Your task to perform on an android device: turn smart compose on in the gmail app Image 0: 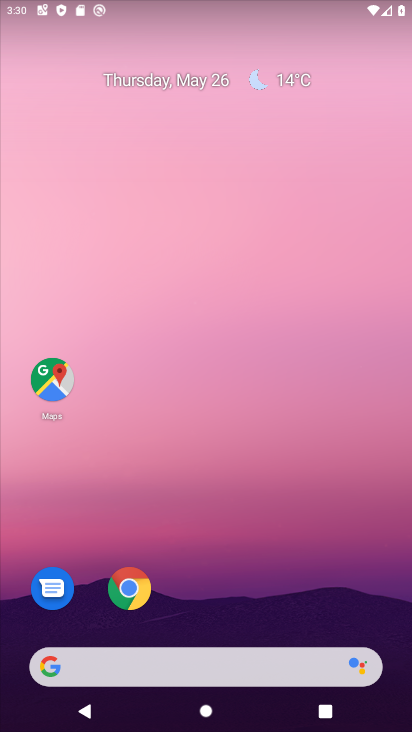
Step 0: drag from (250, 590) to (279, 244)
Your task to perform on an android device: turn smart compose on in the gmail app Image 1: 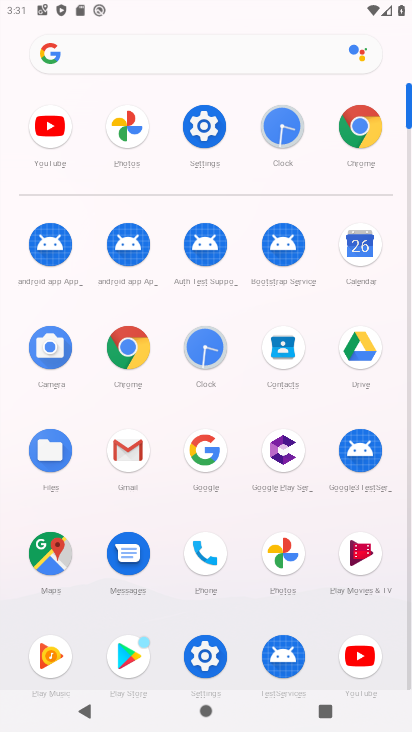
Step 1: click (131, 455)
Your task to perform on an android device: turn smart compose on in the gmail app Image 2: 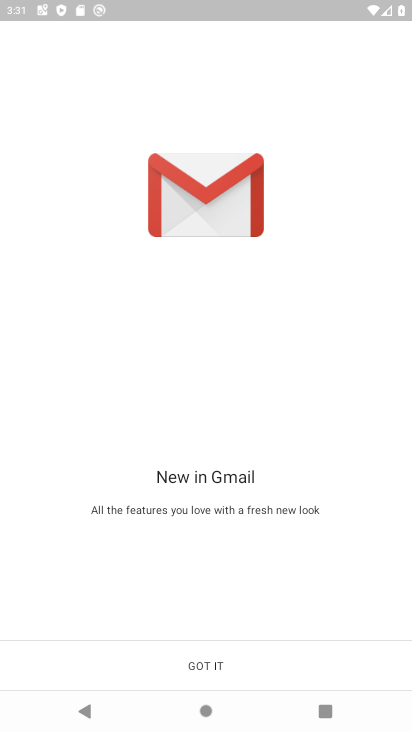
Step 2: click (200, 677)
Your task to perform on an android device: turn smart compose on in the gmail app Image 3: 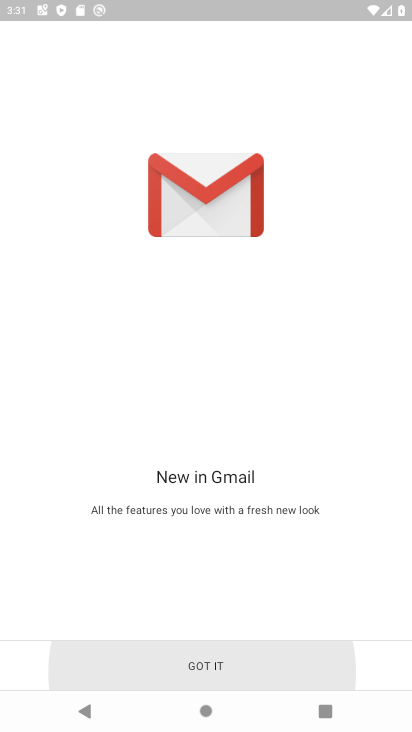
Step 3: click (200, 677)
Your task to perform on an android device: turn smart compose on in the gmail app Image 4: 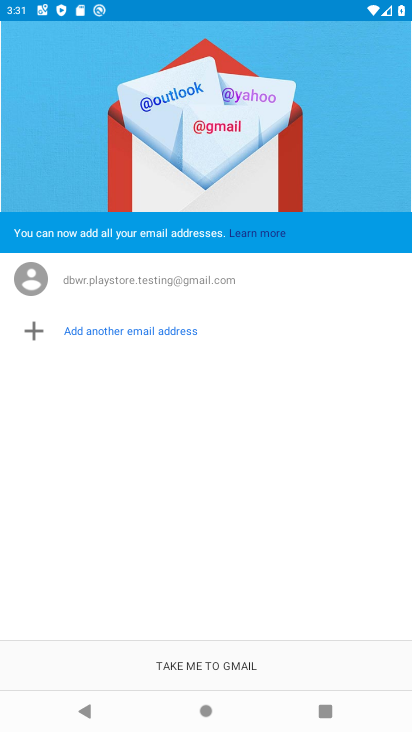
Step 4: click (200, 677)
Your task to perform on an android device: turn smart compose on in the gmail app Image 5: 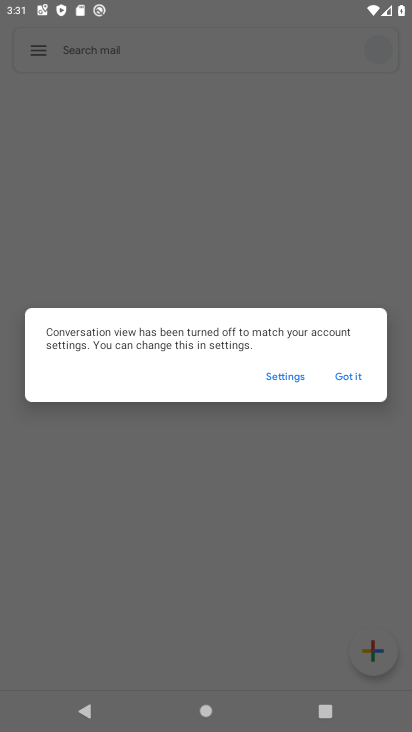
Step 5: click (340, 387)
Your task to perform on an android device: turn smart compose on in the gmail app Image 6: 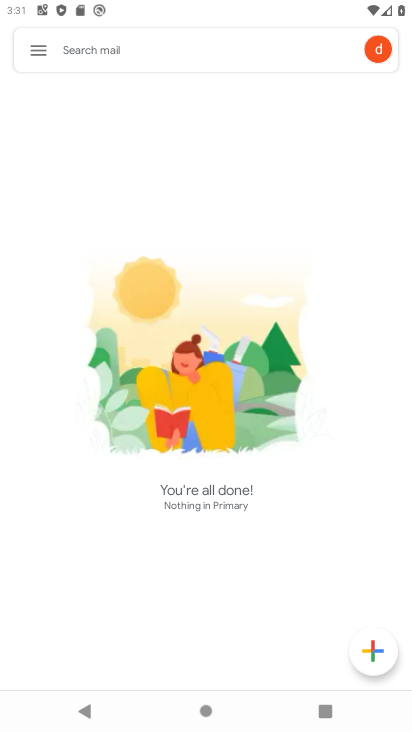
Step 6: click (26, 41)
Your task to perform on an android device: turn smart compose on in the gmail app Image 7: 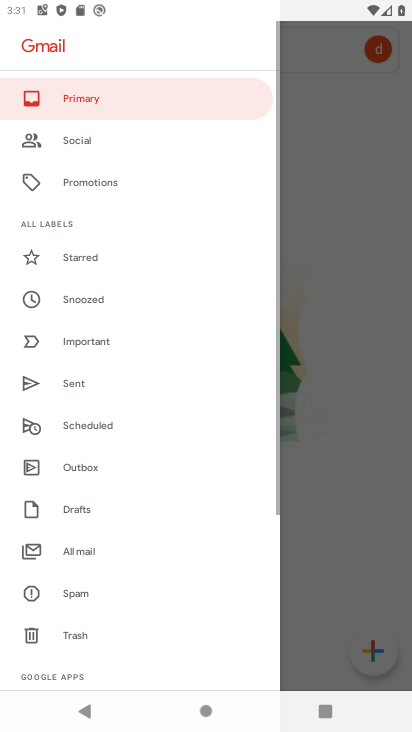
Step 7: drag from (101, 554) to (155, 274)
Your task to perform on an android device: turn smart compose on in the gmail app Image 8: 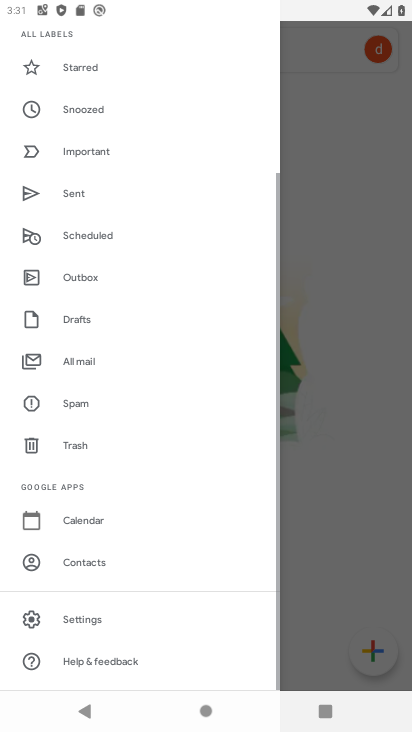
Step 8: click (161, 612)
Your task to perform on an android device: turn smart compose on in the gmail app Image 9: 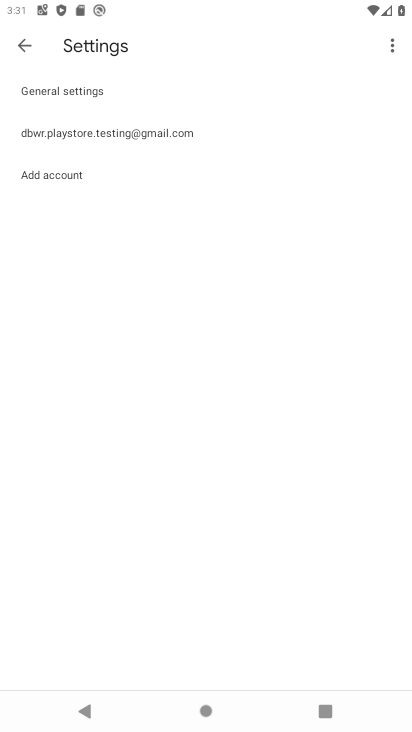
Step 9: click (125, 122)
Your task to perform on an android device: turn smart compose on in the gmail app Image 10: 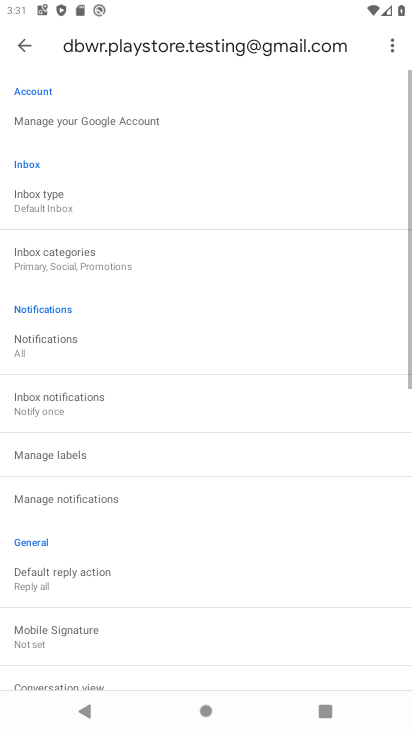
Step 10: drag from (171, 643) to (187, 311)
Your task to perform on an android device: turn smart compose on in the gmail app Image 11: 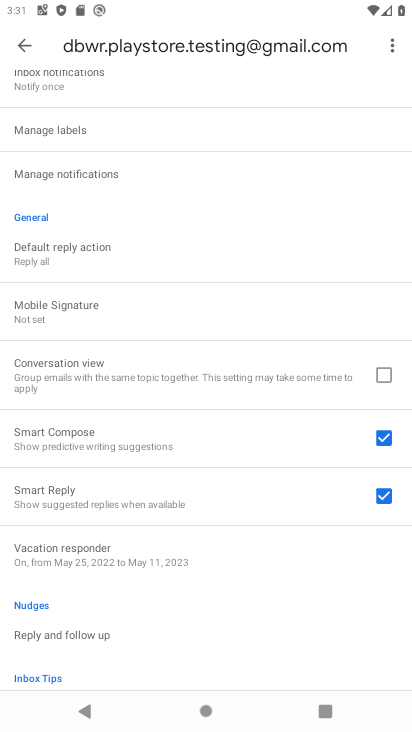
Step 11: click (304, 448)
Your task to perform on an android device: turn smart compose on in the gmail app Image 12: 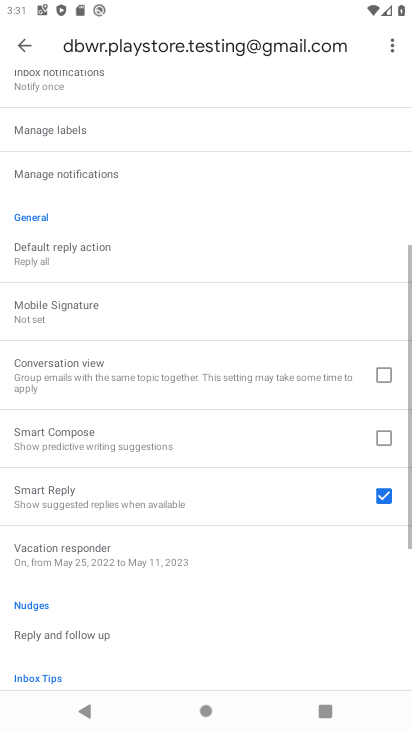
Step 12: task complete